Your task to perform on an android device: What is the news today? Image 0: 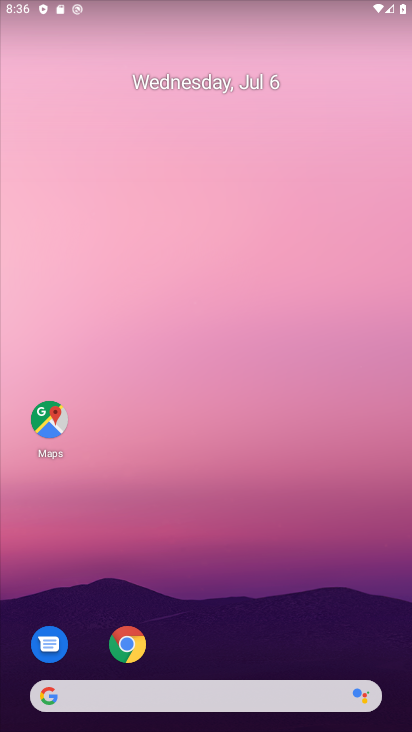
Step 0: drag from (201, 499) to (217, 62)
Your task to perform on an android device: What is the news today? Image 1: 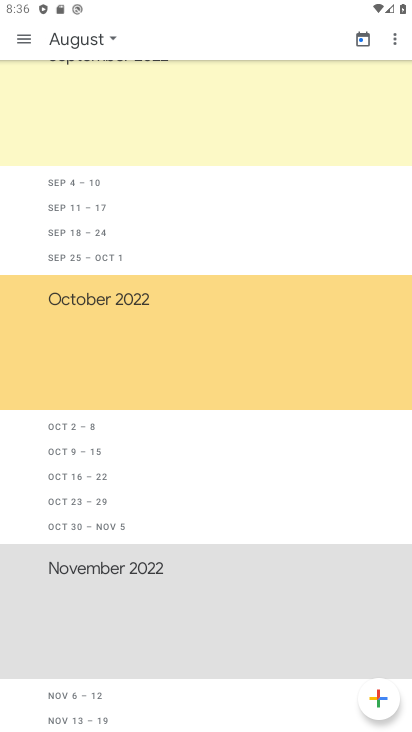
Step 1: task complete